Your task to perform on an android device: Go to Maps Image 0: 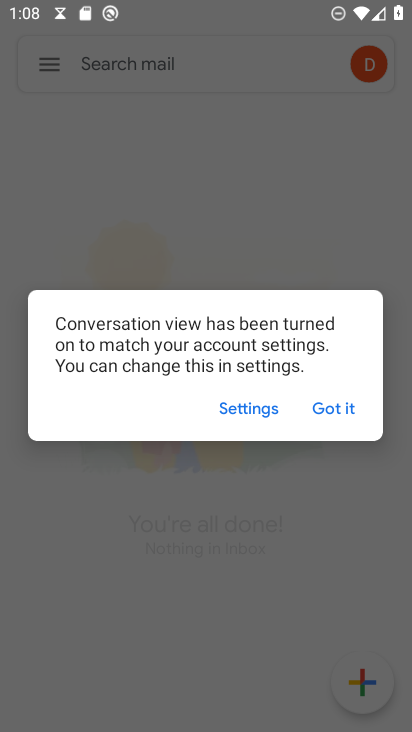
Step 0: press home button
Your task to perform on an android device: Go to Maps Image 1: 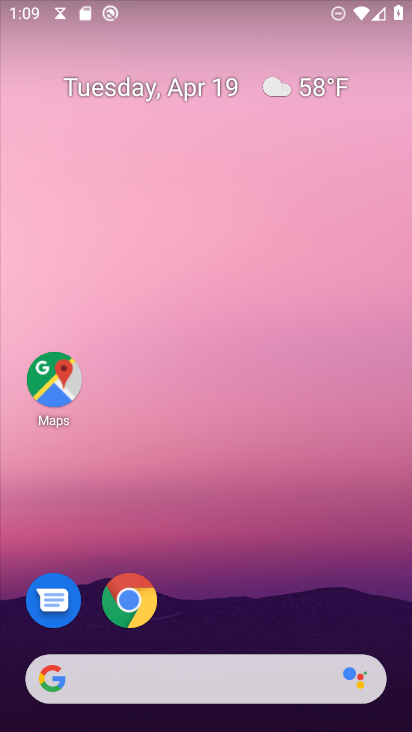
Step 1: click (69, 391)
Your task to perform on an android device: Go to Maps Image 2: 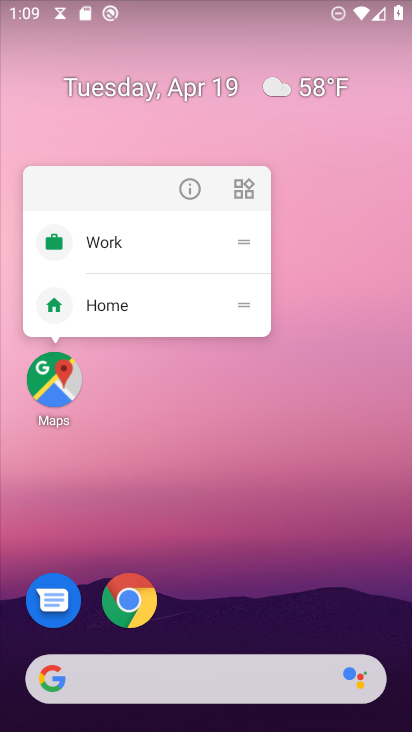
Step 2: click (52, 390)
Your task to perform on an android device: Go to Maps Image 3: 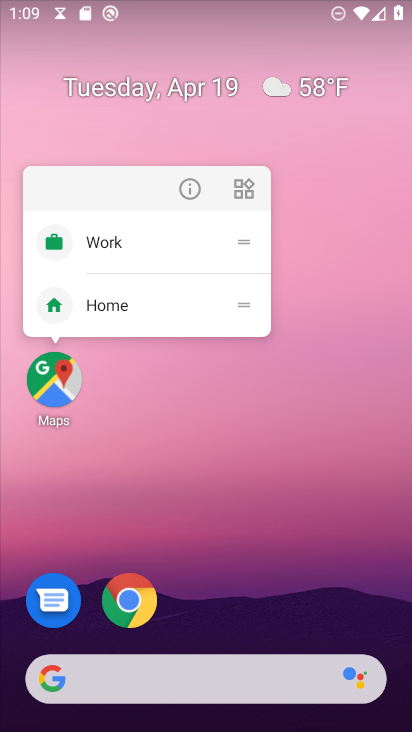
Step 3: click (41, 391)
Your task to perform on an android device: Go to Maps Image 4: 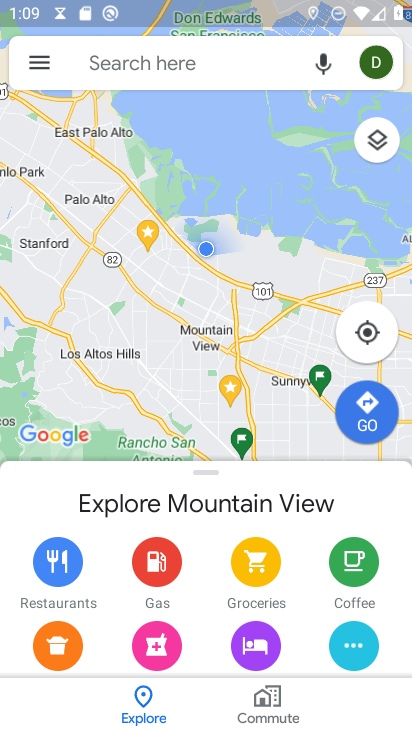
Step 4: task complete